Your task to perform on an android device: Go to calendar. Show me events next week Image 0: 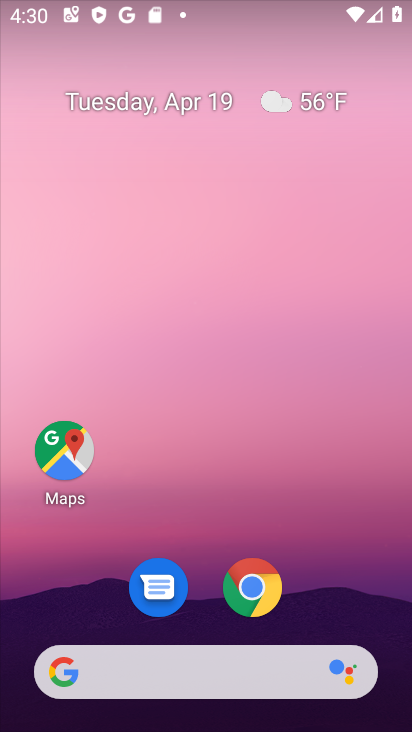
Step 0: drag from (211, 705) to (191, 74)
Your task to perform on an android device: Go to calendar. Show me events next week Image 1: 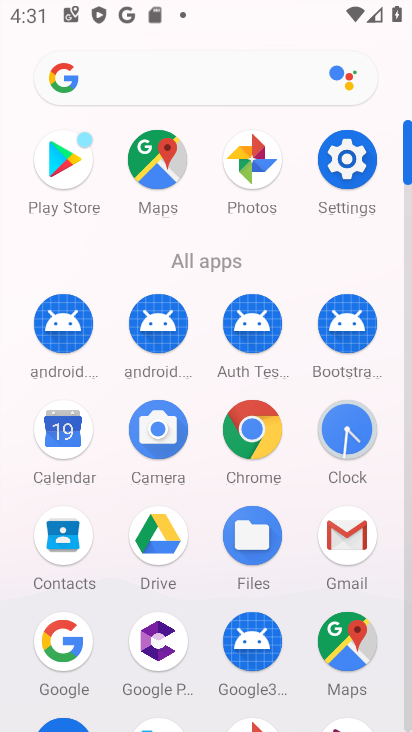
Step 1: click (62, 433)
Your task to perform on an android device: Go to calendar. Show me events next week Image 2: 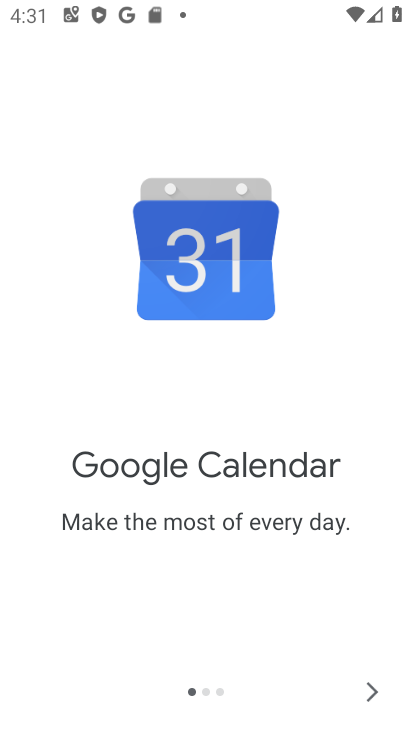
Step 2: click (375, 692)
Your task to perform on an android device: Go to calendar. Show me events next week Image 3: 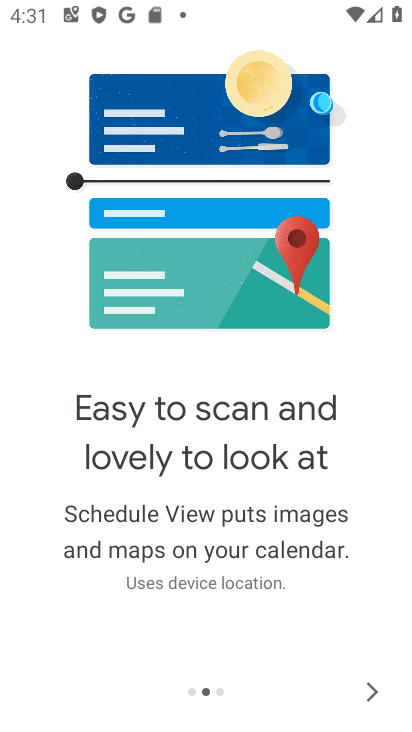
Step 3: click (372, 694)
Your task to perform on an android device: Go to calendar. Show me events next week Image 4: 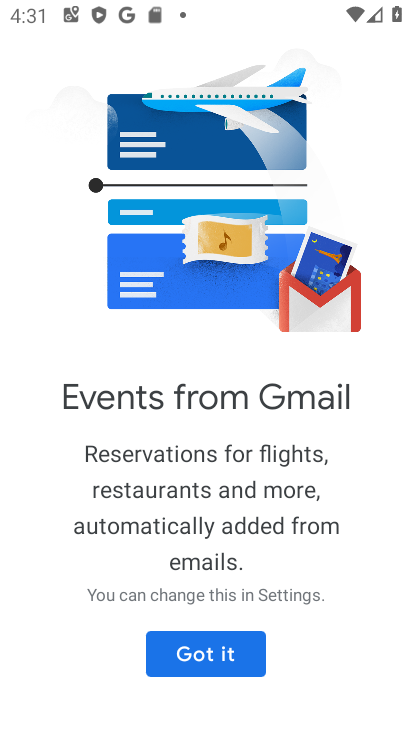
Step 4: click (188, 648)
Your task to perform on an android device: Go to calendar. Show me events next week Image 5: 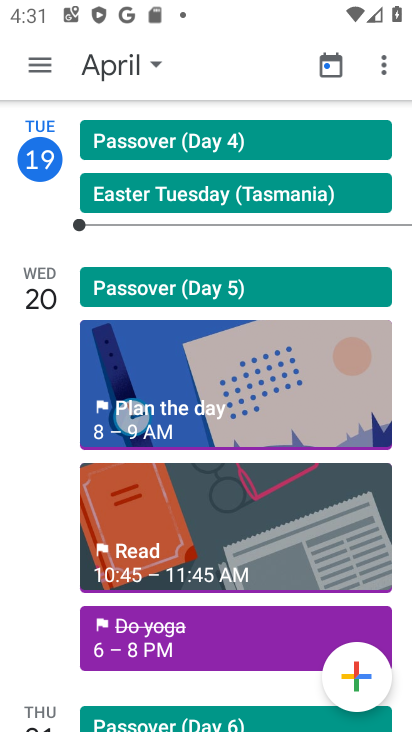
Step 5: click (103, 67)
Your task to perform on an android device: Go to calendar. Show me events next week Image 6: 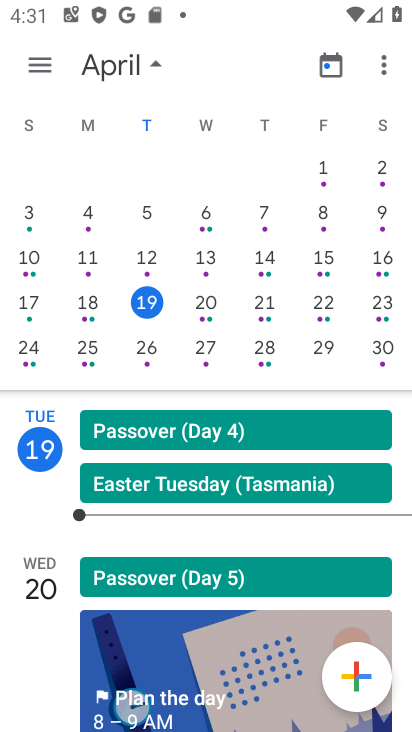
Step 6: click (87, 347)
Your task to perform on an android device: Go to calendar. Show me events next week Image 7: 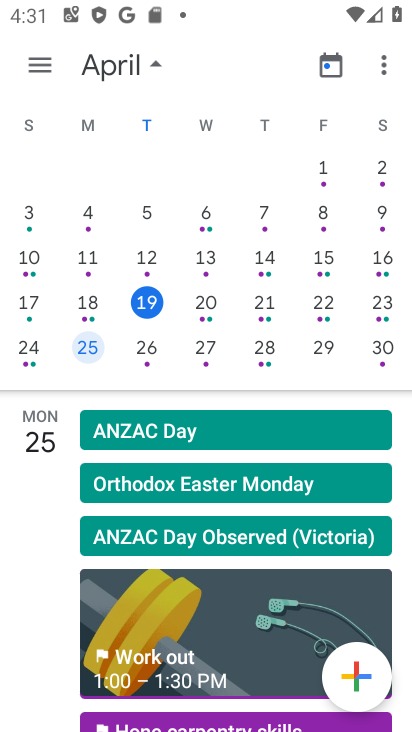
Step 7: click (83, 347)
Your task to perform on an android device: Go to calendar. Show me events next week Image 8: 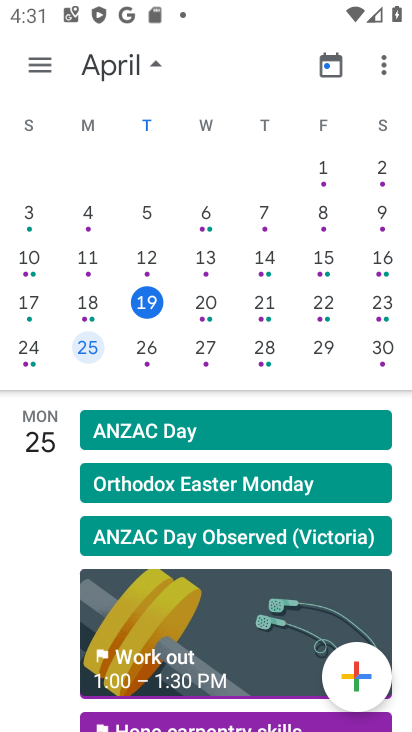
Step 8: click (90, 346)
Your task to perform on an android device: Go to calendar. Show me events next week Image 9: 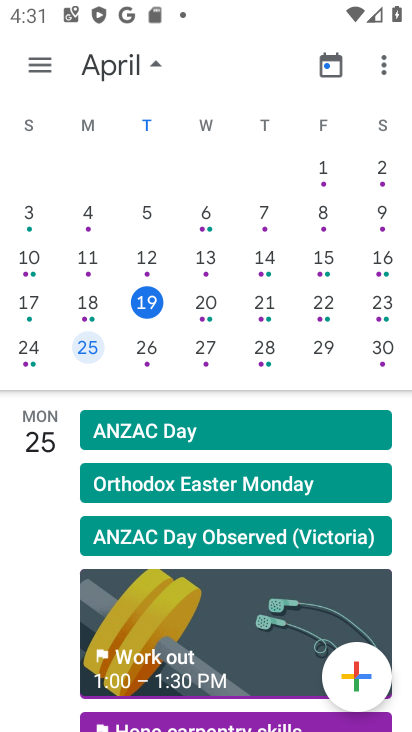
Step 9: click (102, 65)
Your task to perform on an android device: Go to calendar. Show me events next week Image 10: 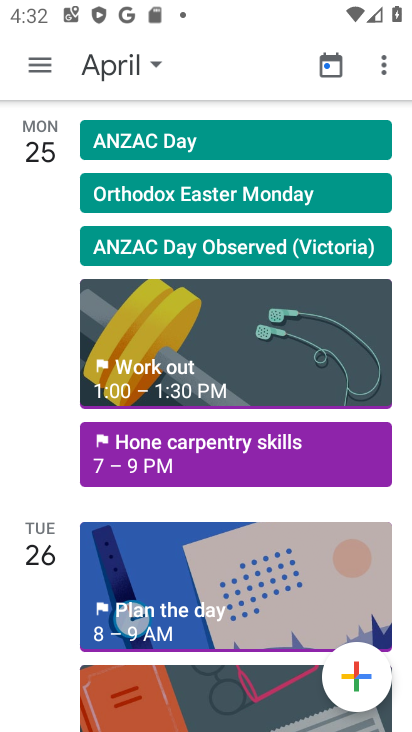
Step 10: task complete